Your task to perform on an android device: turn off location Image 0: 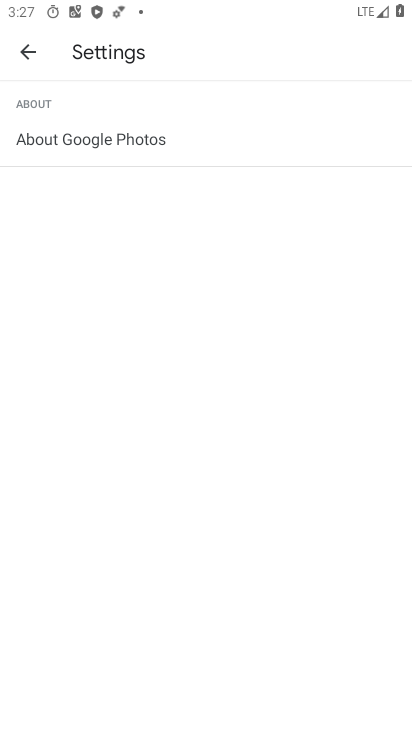
Step 0: press home button
Your task to perform on an android device: turn off location Image 1: 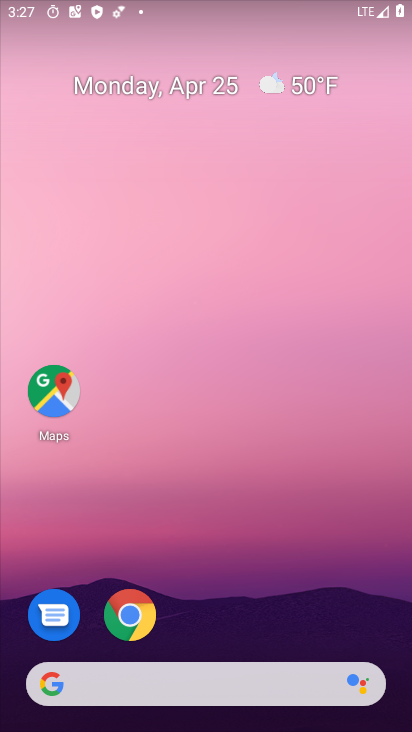
Step 1: drag from (214, 724) to (215, 233)
Your task to perform on an android device: turn off location Image 2: 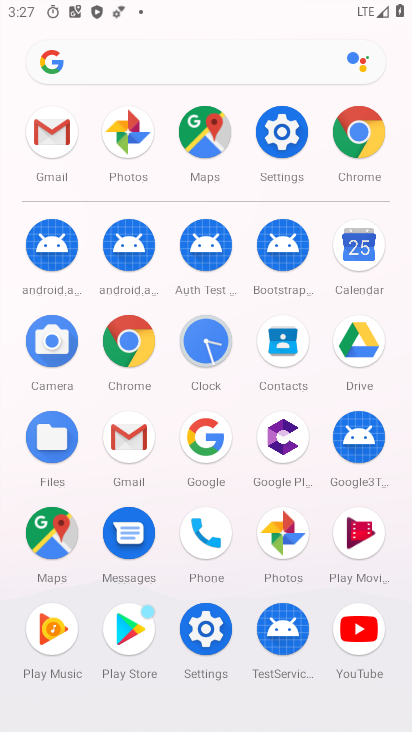
Step 2: click (281, 132)
Your task to perform on an android device: turn off location Image 3: 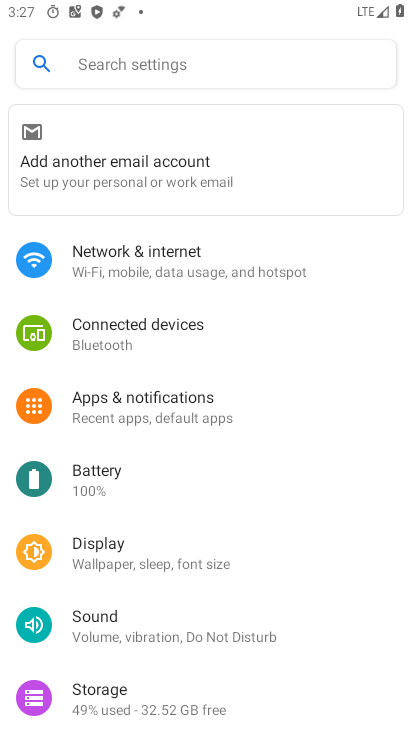
Step 3: drag from (171, 646) to (164, 234)
Your task to perform on an android device: turn off location Image 4: 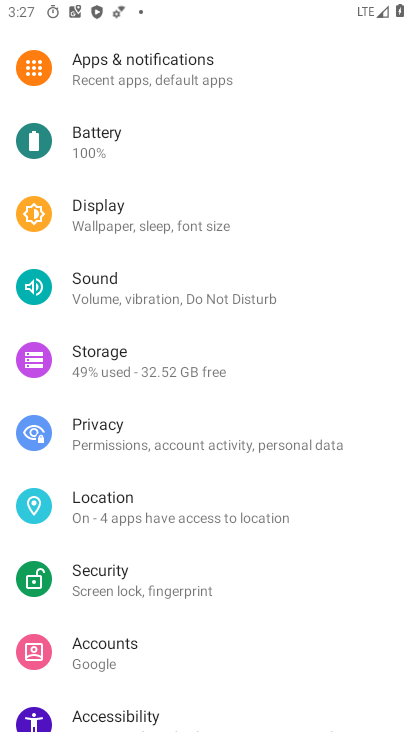
Step 4: click (130, 508)
Your task to perform on an android device: turn off location Image 5: 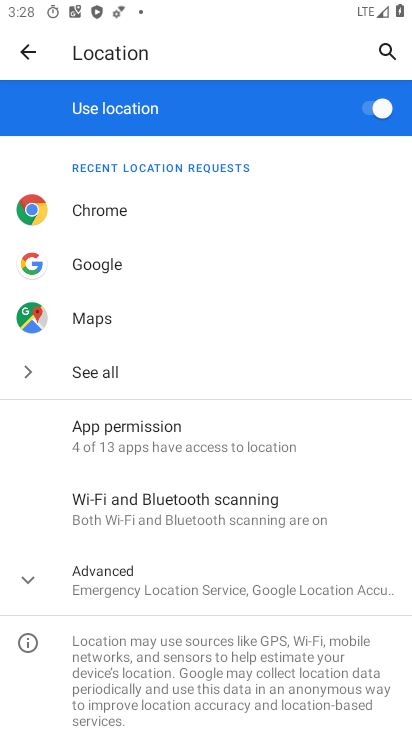
Step 5: click (364, 105)
Your task to perform on an android device: turn off location Image 6: 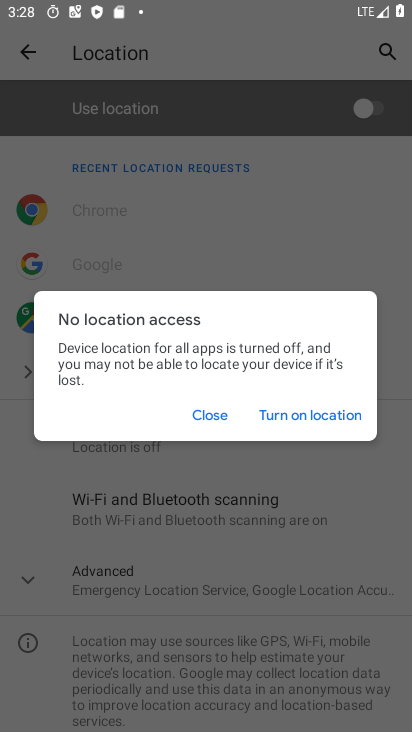
Step 6: click (207, 413)
Your task to perform on an android device: turn off location Image 7: 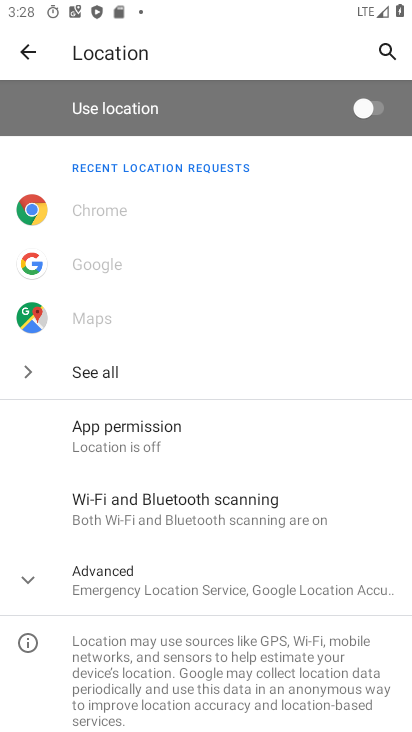
Step 7: task complete